Your task to perform on an android device: uninstall "Roku - Official Remote Control" Image 0: 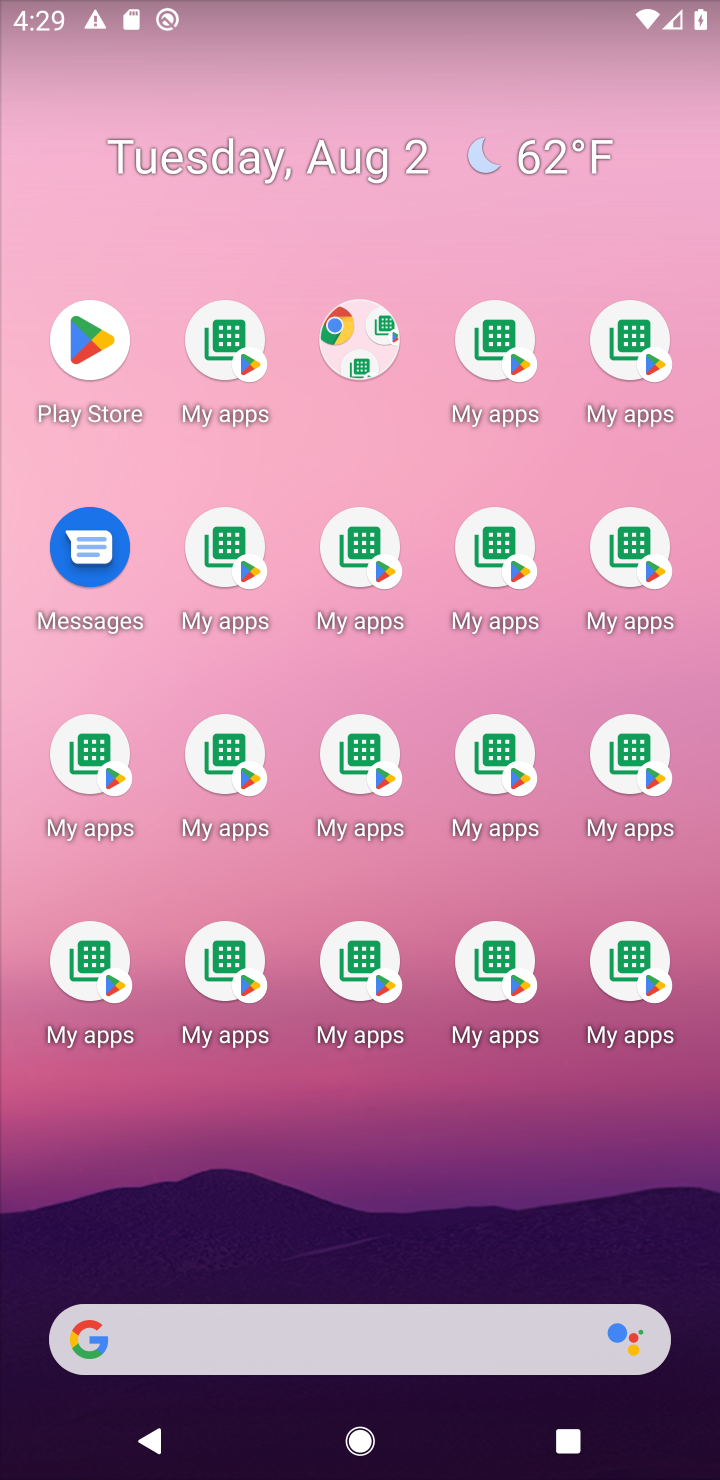
Step 0: click (69, 320)
Your task to perform on an android device: uninstall "Roku - Official Remote Control" Image 1: 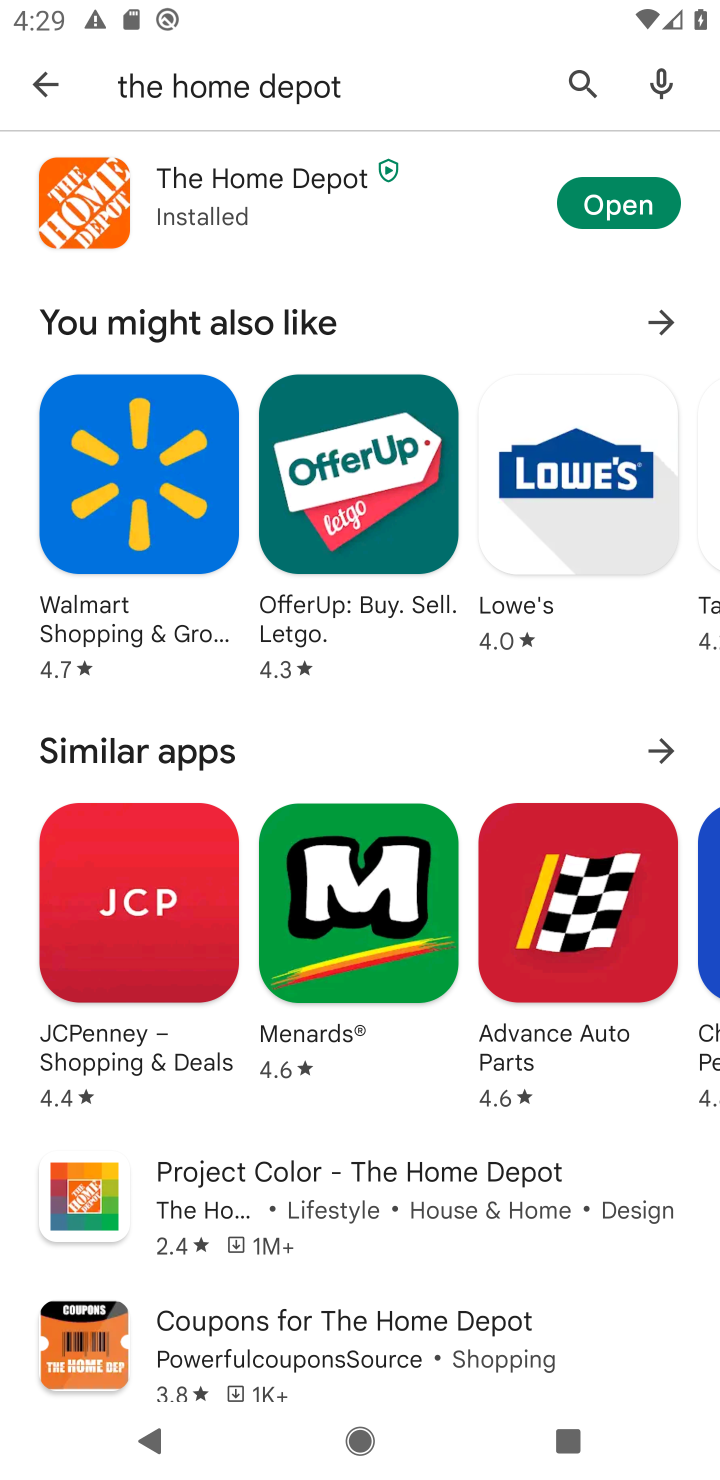
Step 1: click (630, 192)
Your task to perform on an android device: uninstall "Roku - Official Remote Control" Image 2: 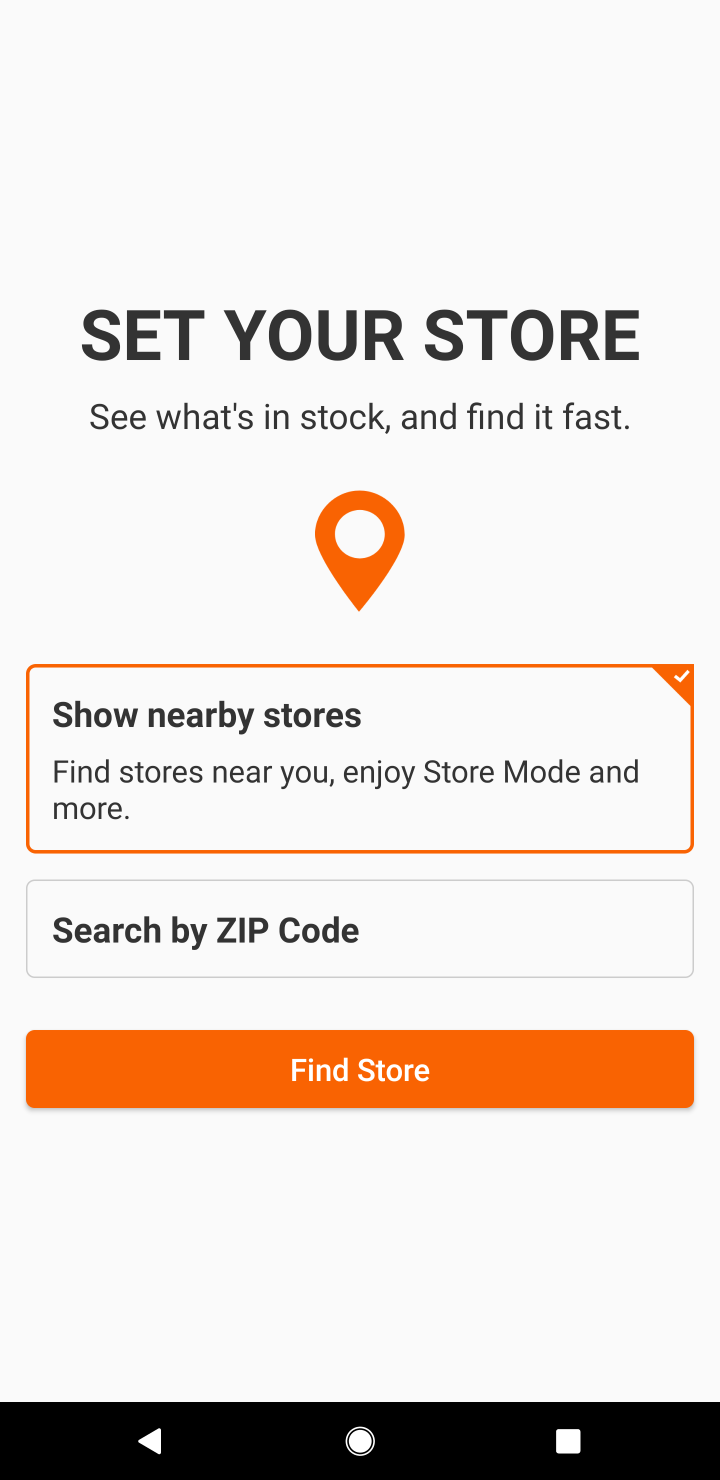
Step 2: press back button
Your task to perform on an android device: uninstall "Roku - Official Remote Control" Image 3: 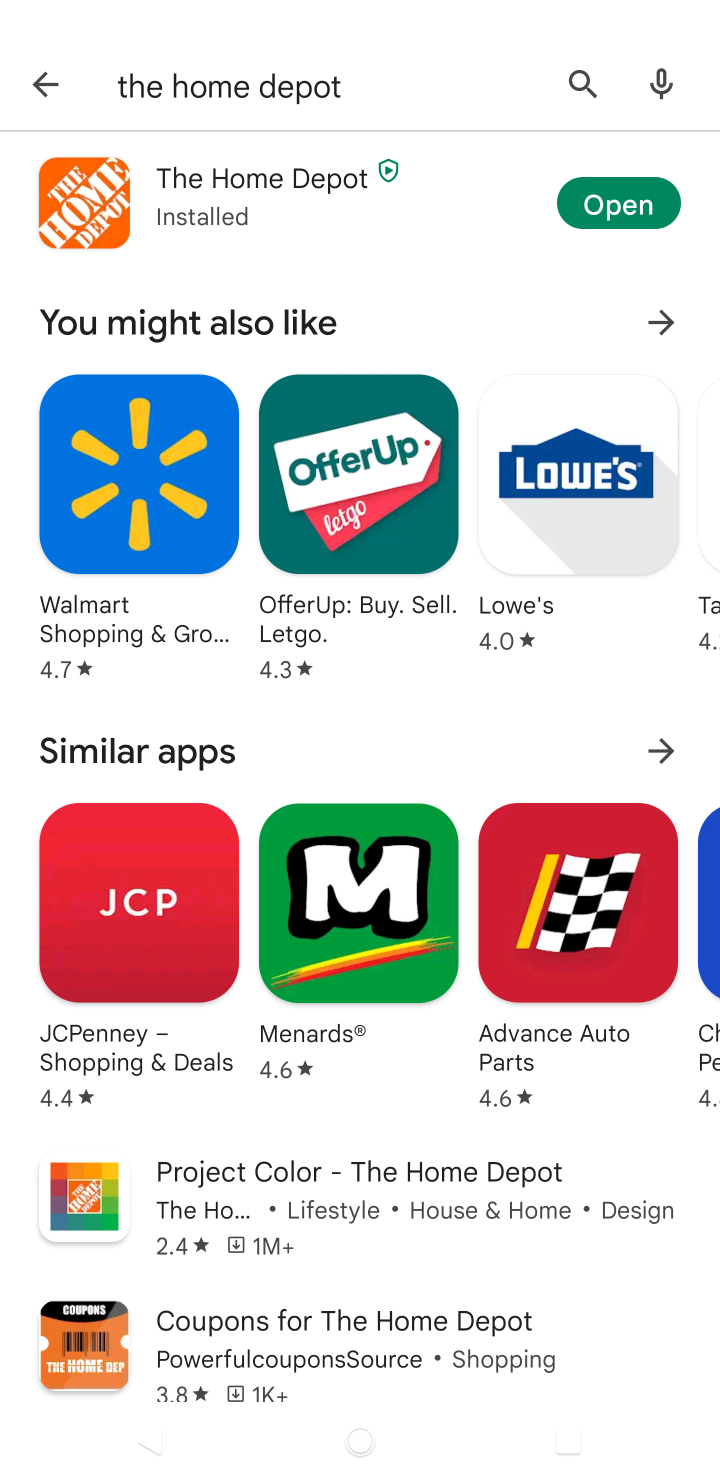
Step 3: click (383, 223)
Your task to perform on an android device: uninstall "Roku - Official Remote Control" Image 4: 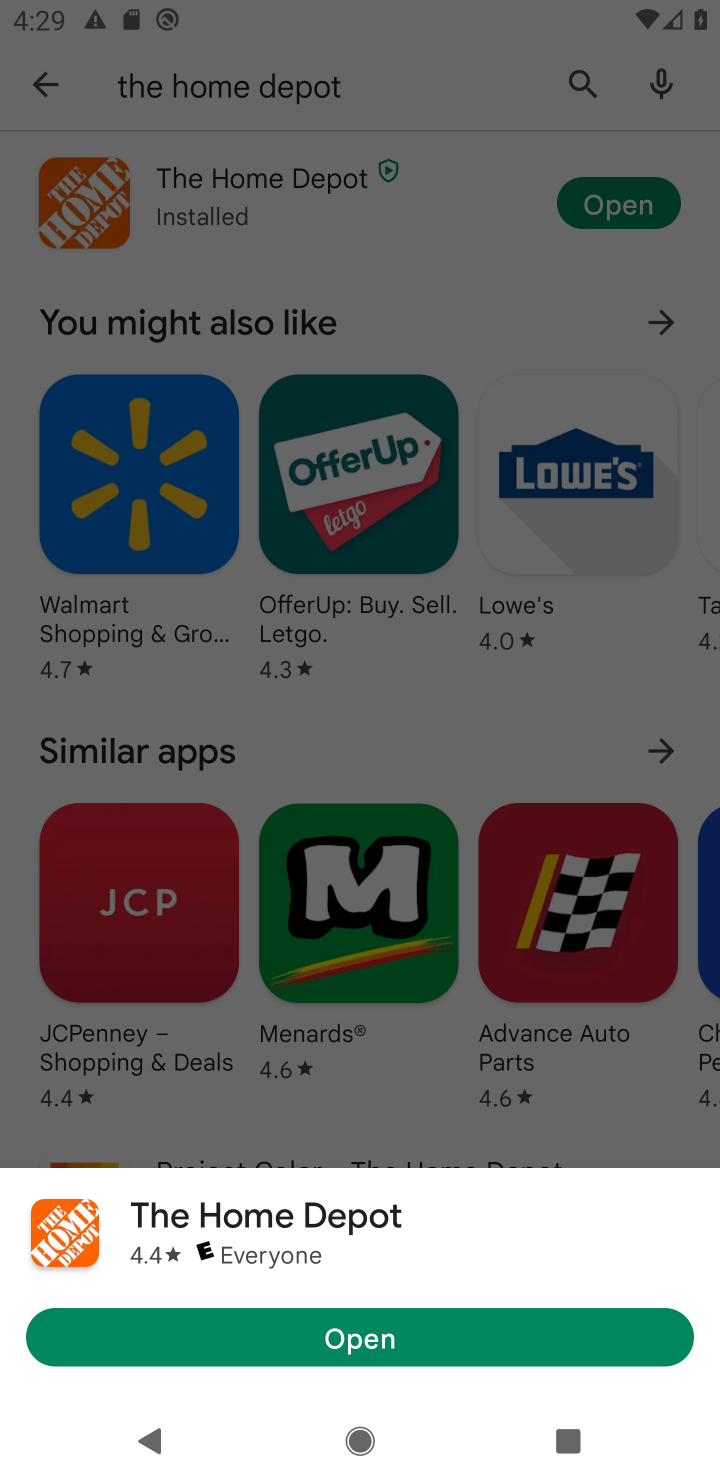
Step 4: click (579, 86)
Your task to perform on an android device: uninstall "Roku - Official Remote Control" Image 5: 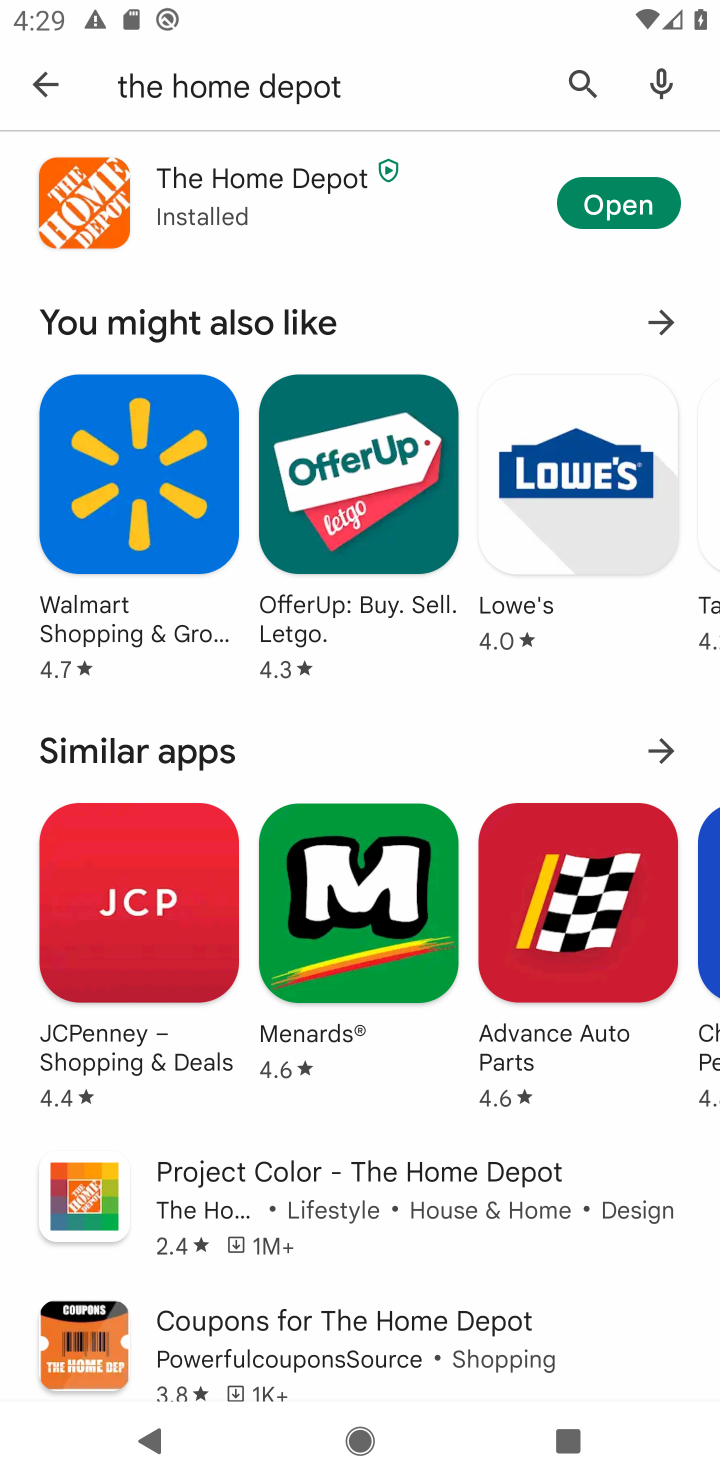
Step 5: click (583, 83)
Your task to perform on an android device: uninstall "Roku - Official Remote Control" Image 6: 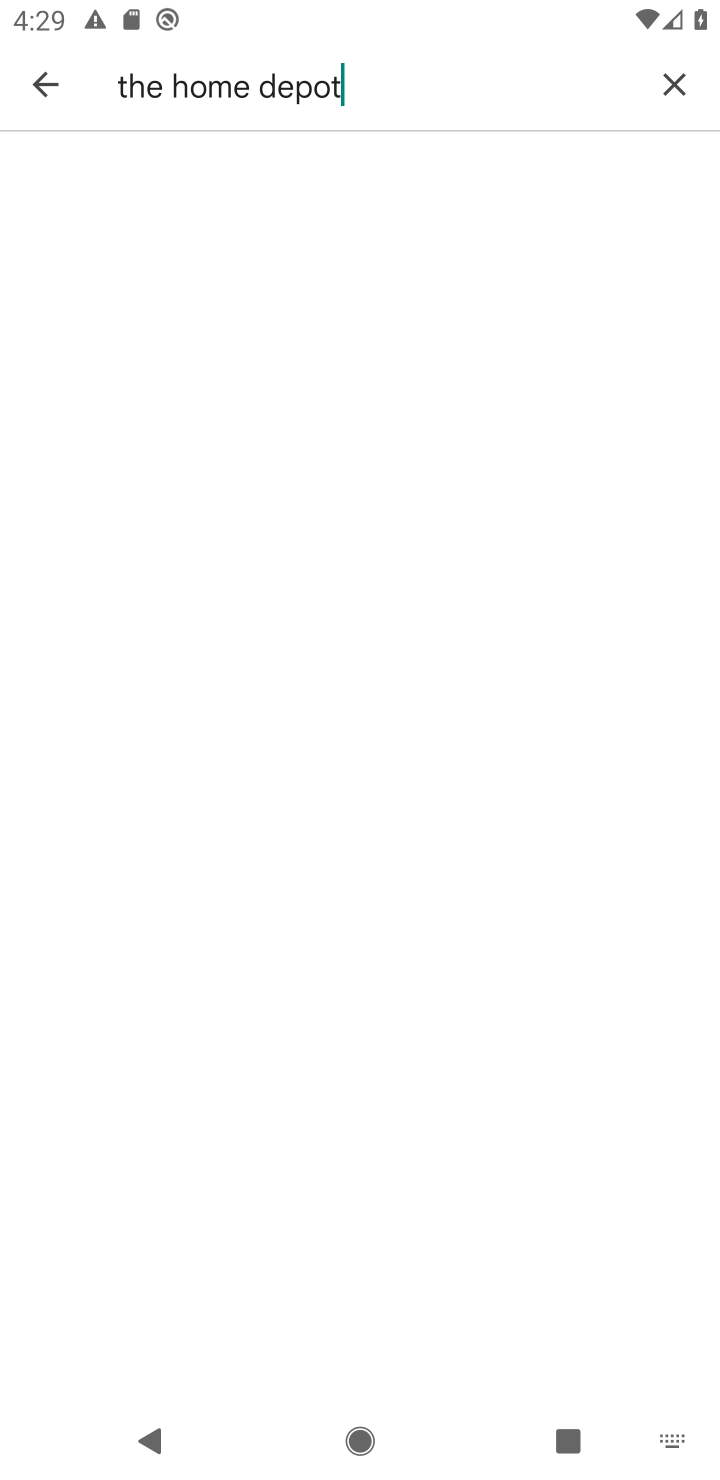
Step 6: click (585, 82)
Your task to perform on an android device: uninstall "Roku - Official Remote Control" Image 7: 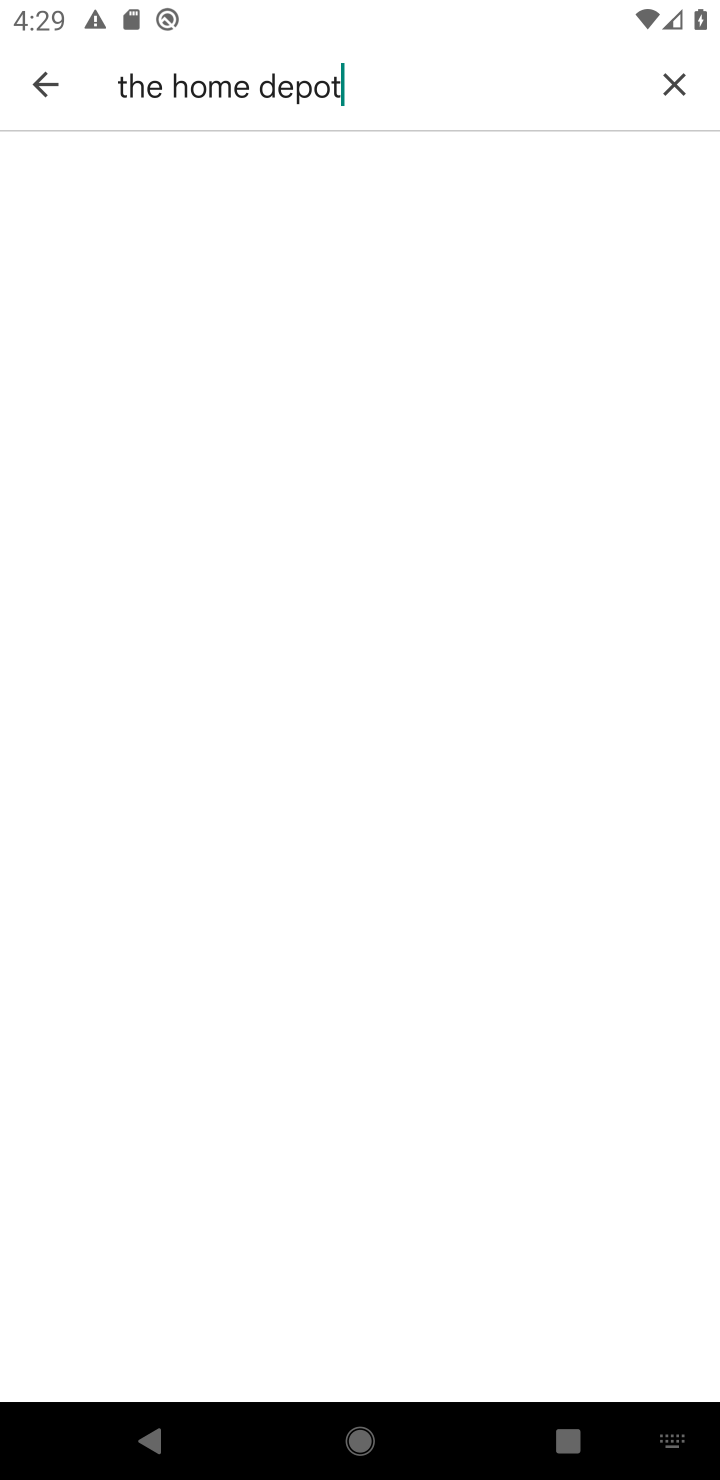
Step 7: click (585, 84)
Your task to perform on an android device: uninstall "Roku - Official Remote Control" Image 8: 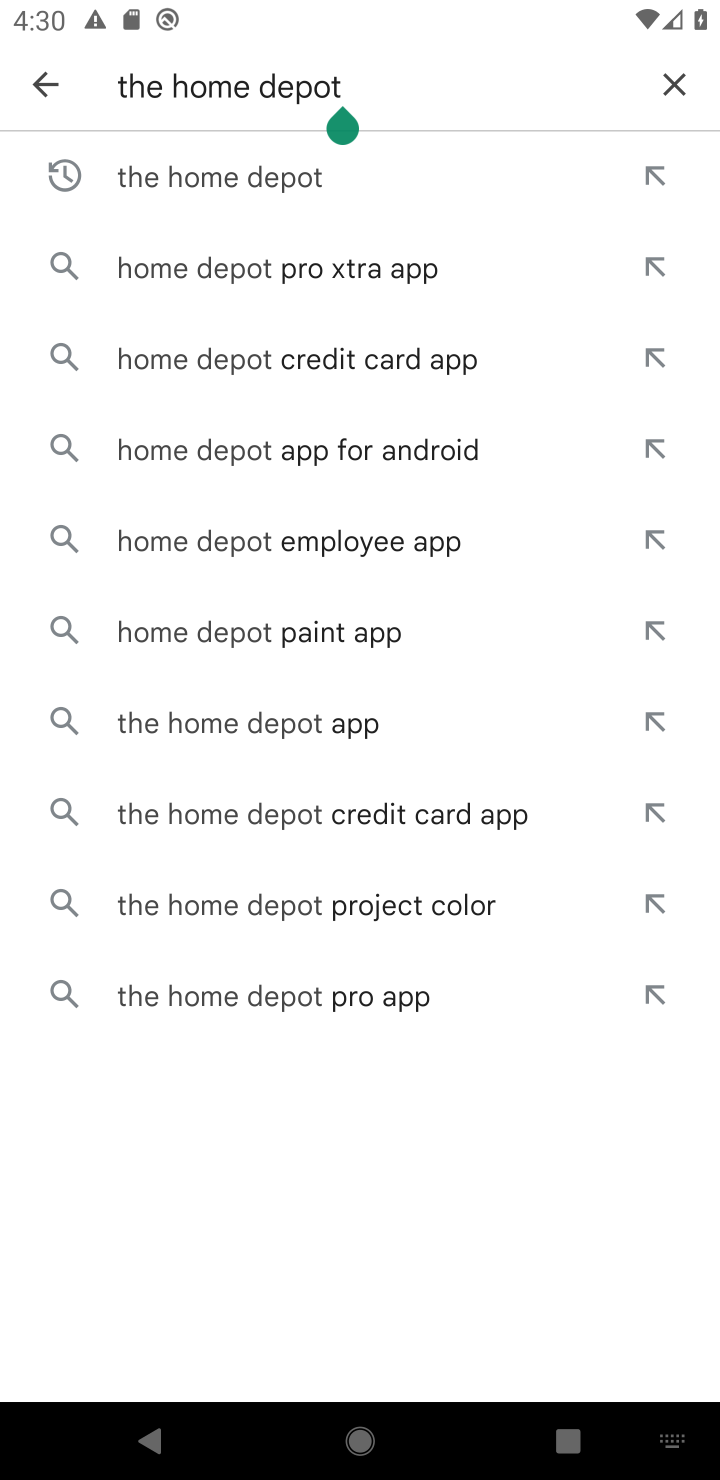
Step 8: click (675, 85)
Your task to perform on an android device: uninstall "Roku - Official Remote Control" Image 9: 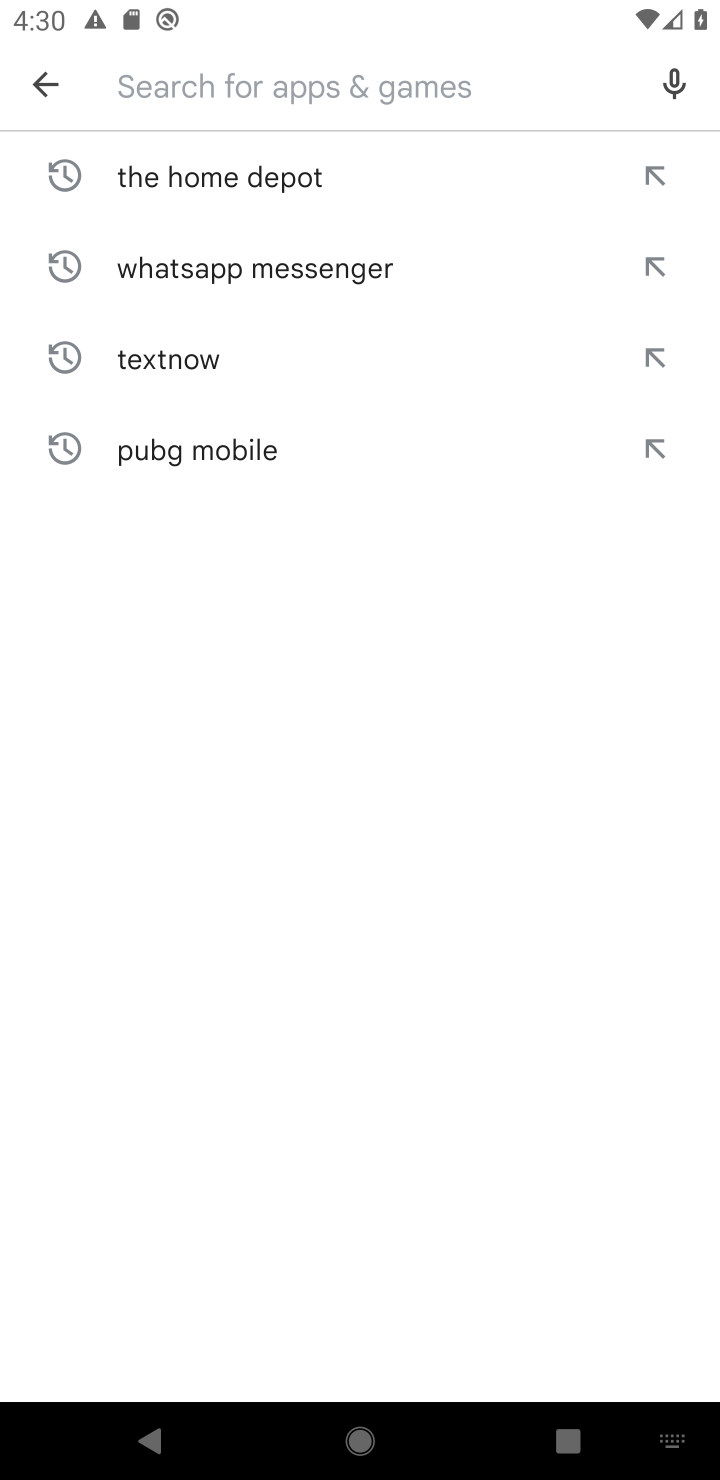
Step 9: type "roku - official remote control"
Your task to perform on an android device: uninstall "Roku - Official Remote Control" Image 10: 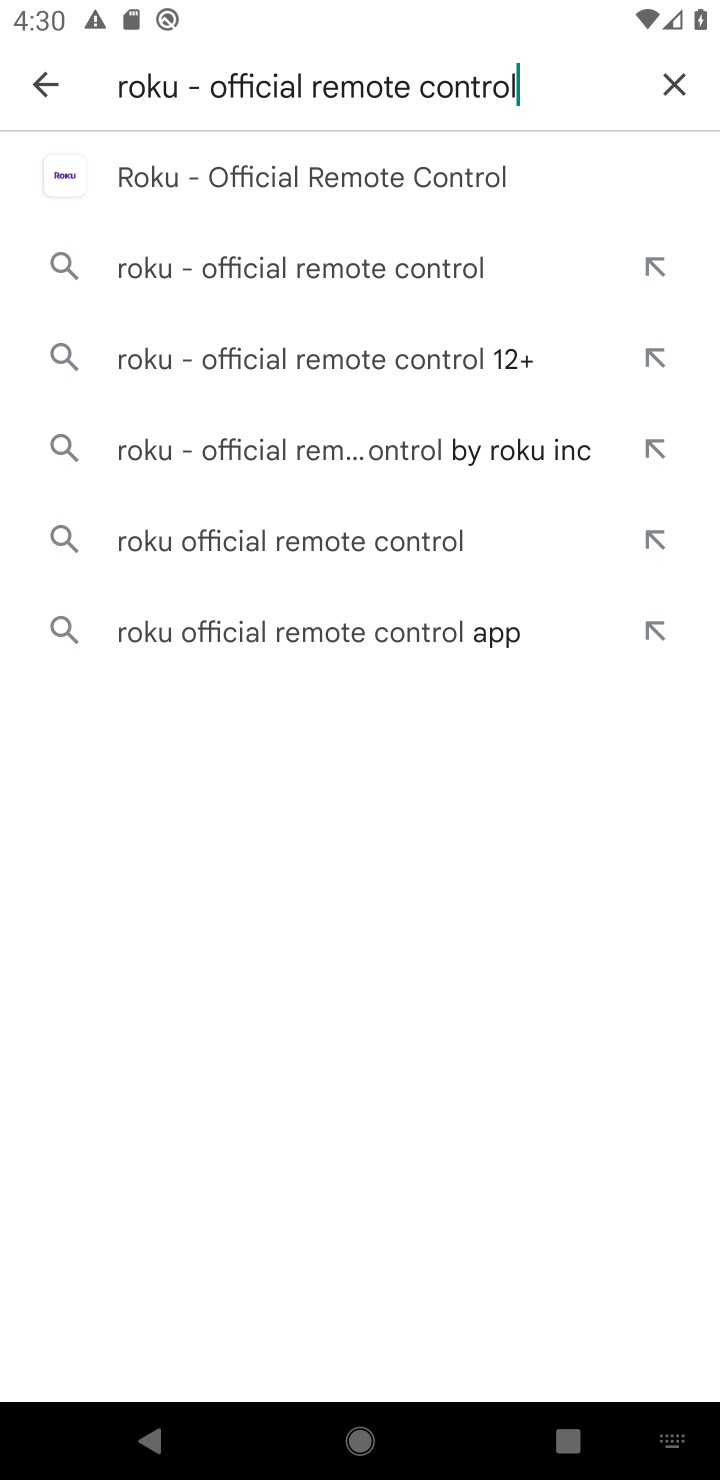
Step 10: click (427, 171)
Your task to perform on an android device: uninstall "Roku - Official Remote Control" Image 11: 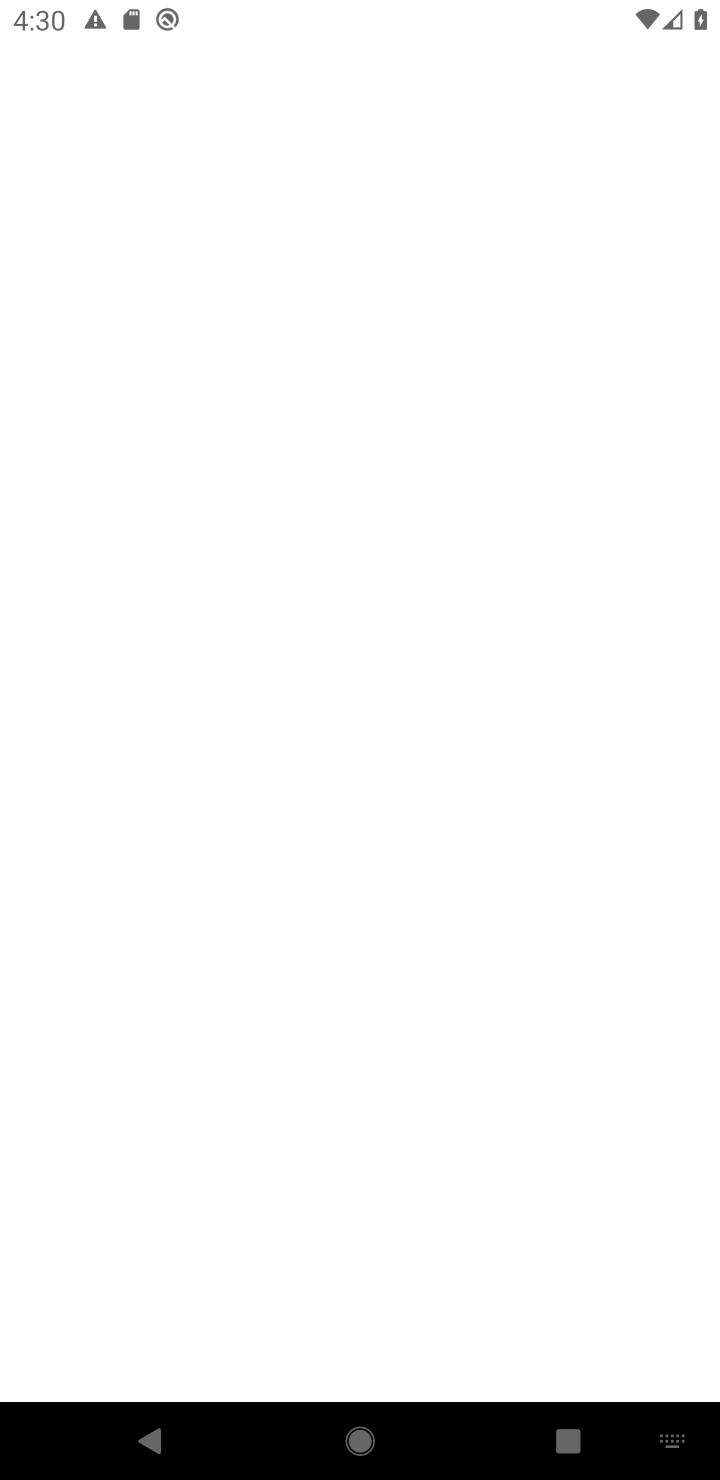
Step 11: click (407, 204)
Your task to perform on an android device: uninstall "Roku - Official Remote Control" Image 12: 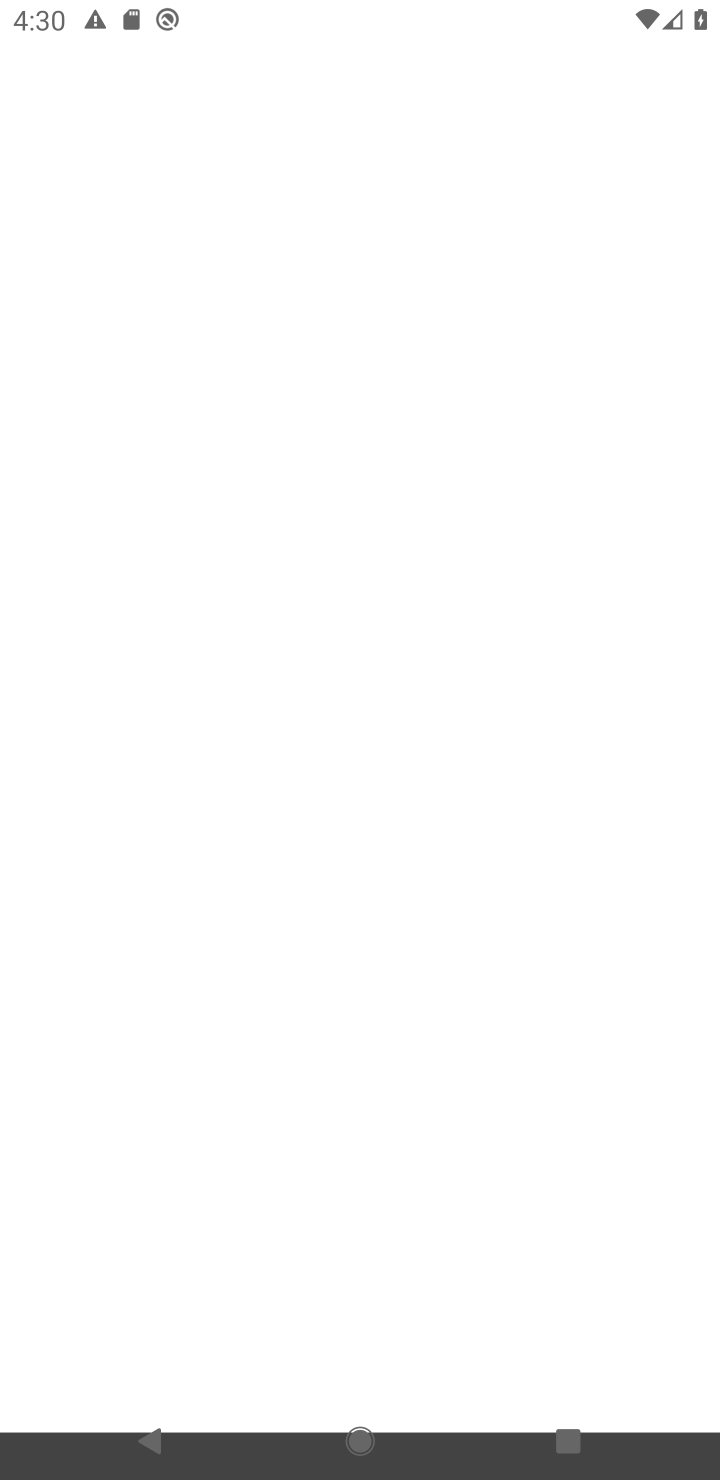
Step 12: click (407, 196)
Your task to perform on an android device: uninstall "Roku - Official Remote Control" Image 13: 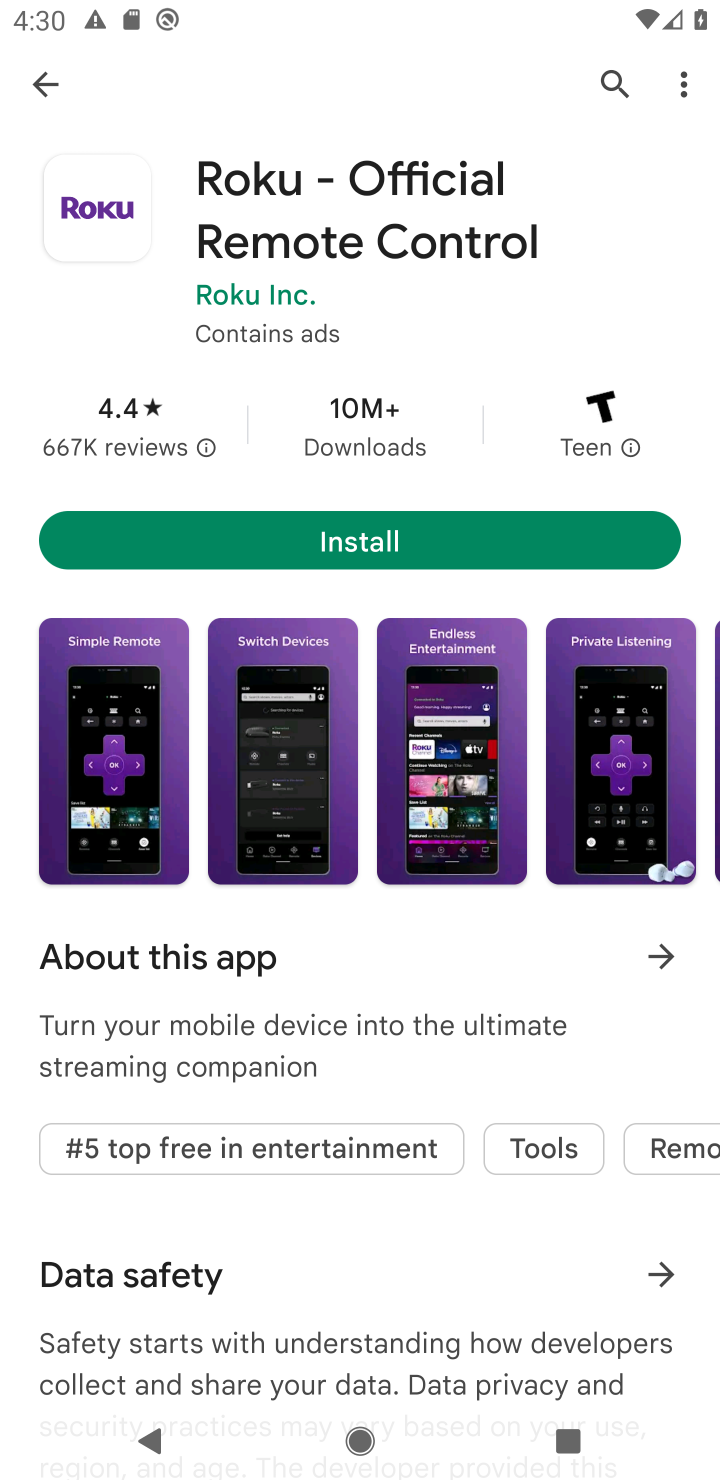
Step 13: click (368, 545)
Your task to perform on an android device: uninstall "Roku - Official Remote Control" Image 14: 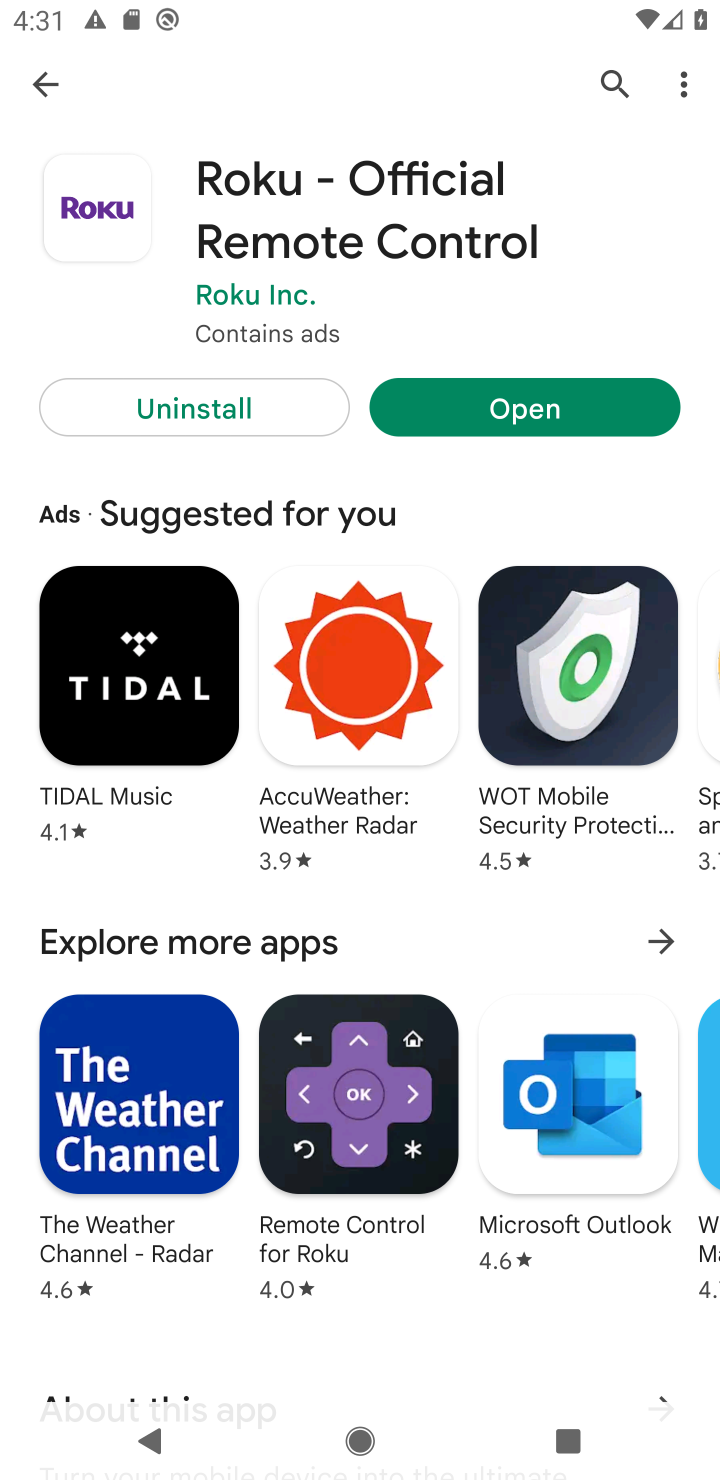
Step 14: click (544, 402)
Your task to perform on an android device: uninstall "Roku - Official Remote Control" Image 15: 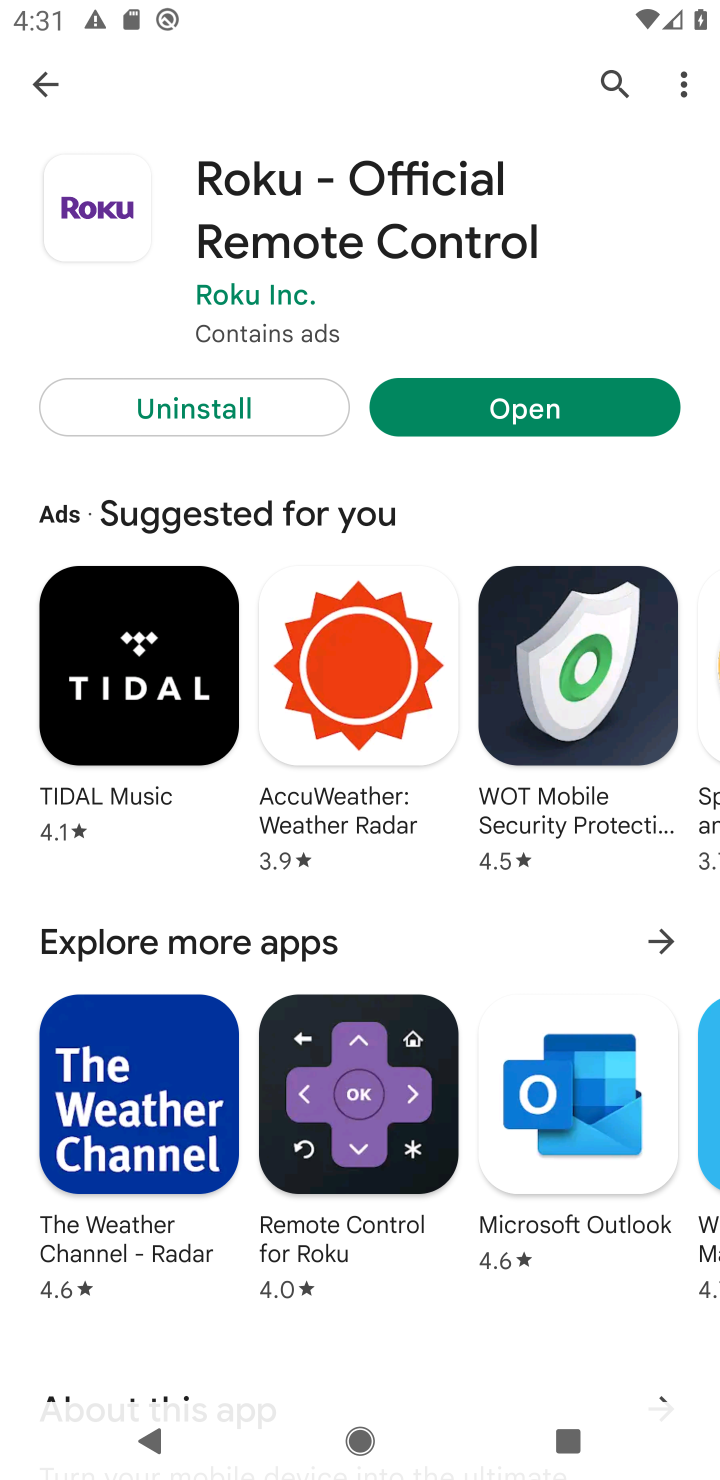
Step 15: click (540, 400)
Your task to perform on an android device: uninstall "Roku - Official Remote Control" Image 16: 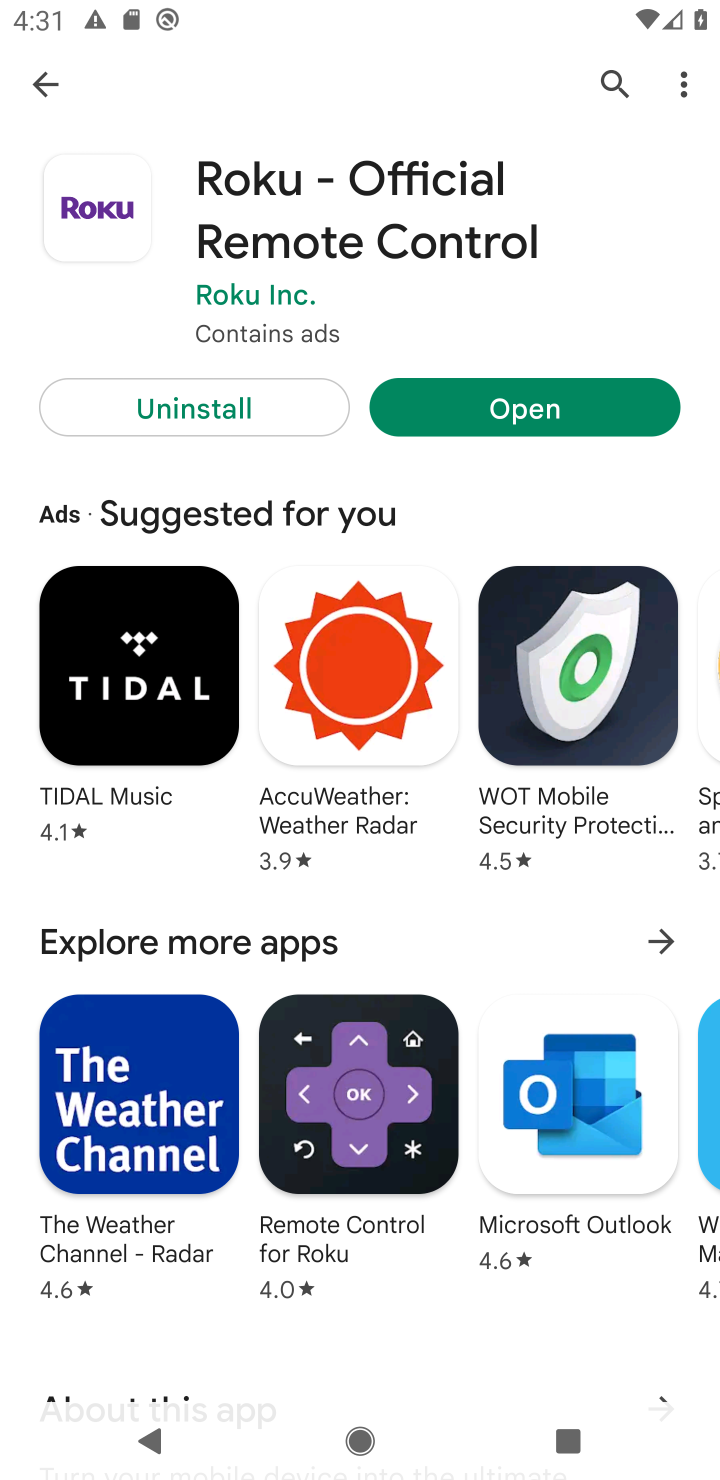
Step 16: click (202, 370)
Your task to perform on an android device: uninstall "Roku - Official Remote Control" Image 17: 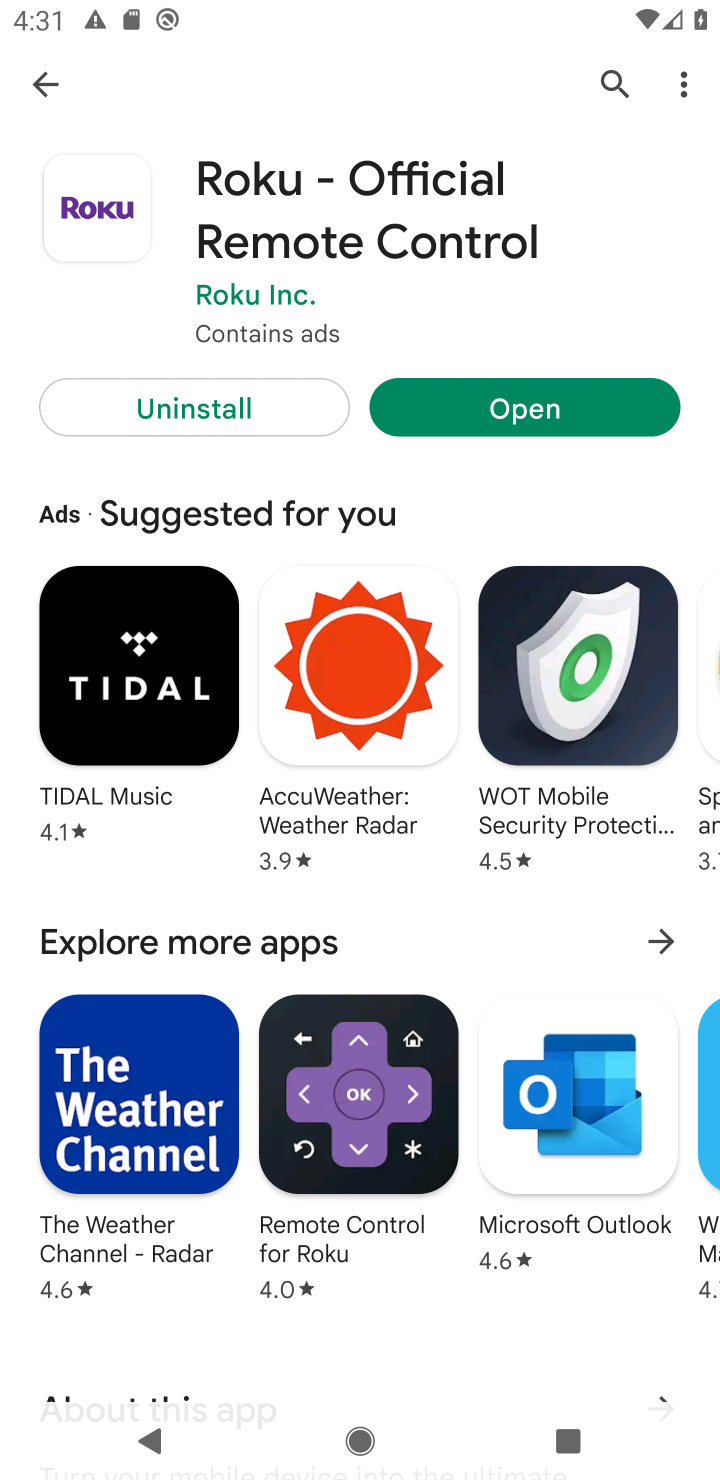
Step 17: click (241, 389)
Your task to perform on an android device: uninstall "Roku - Official Remote Control" Image 18: 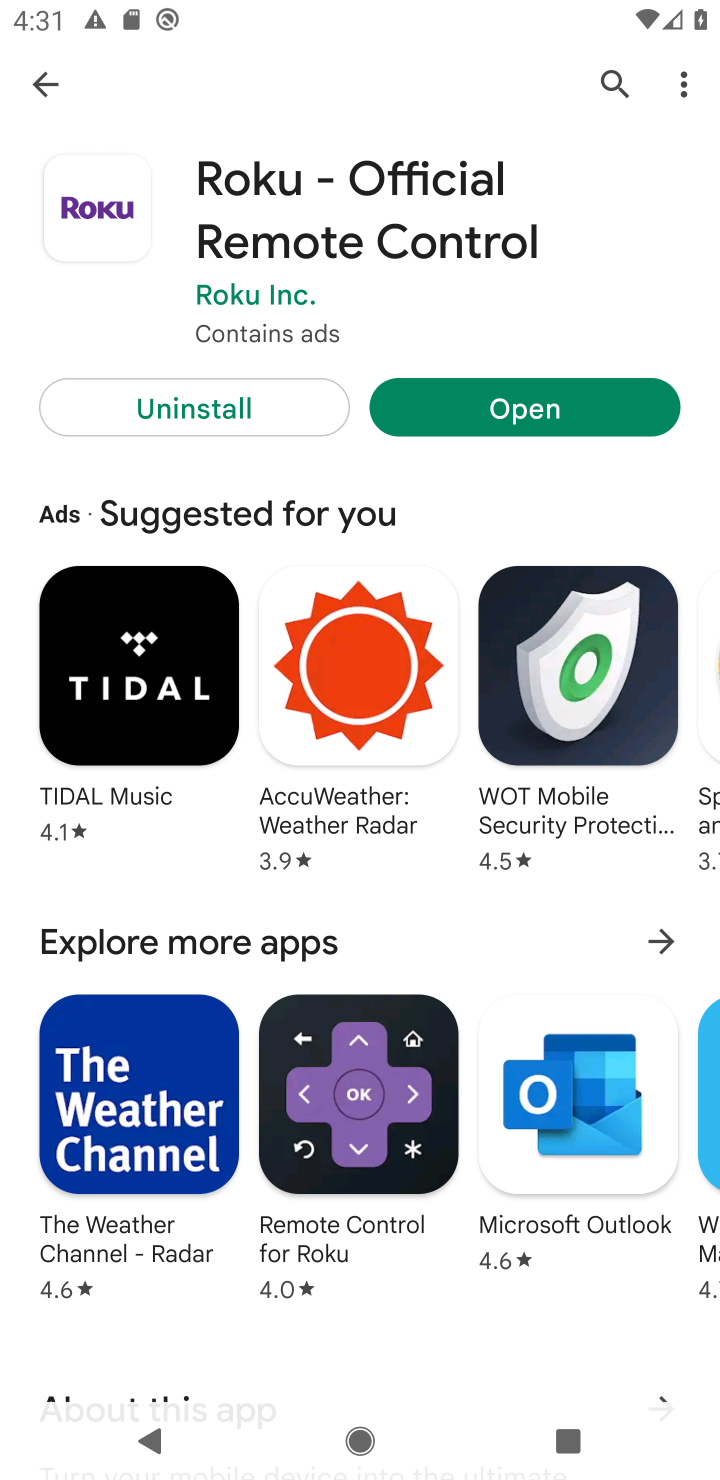
Step 18: click (241, 389)
Your task to perform on an android device: uninstall "Roku - Official Remote Control" Image 19: 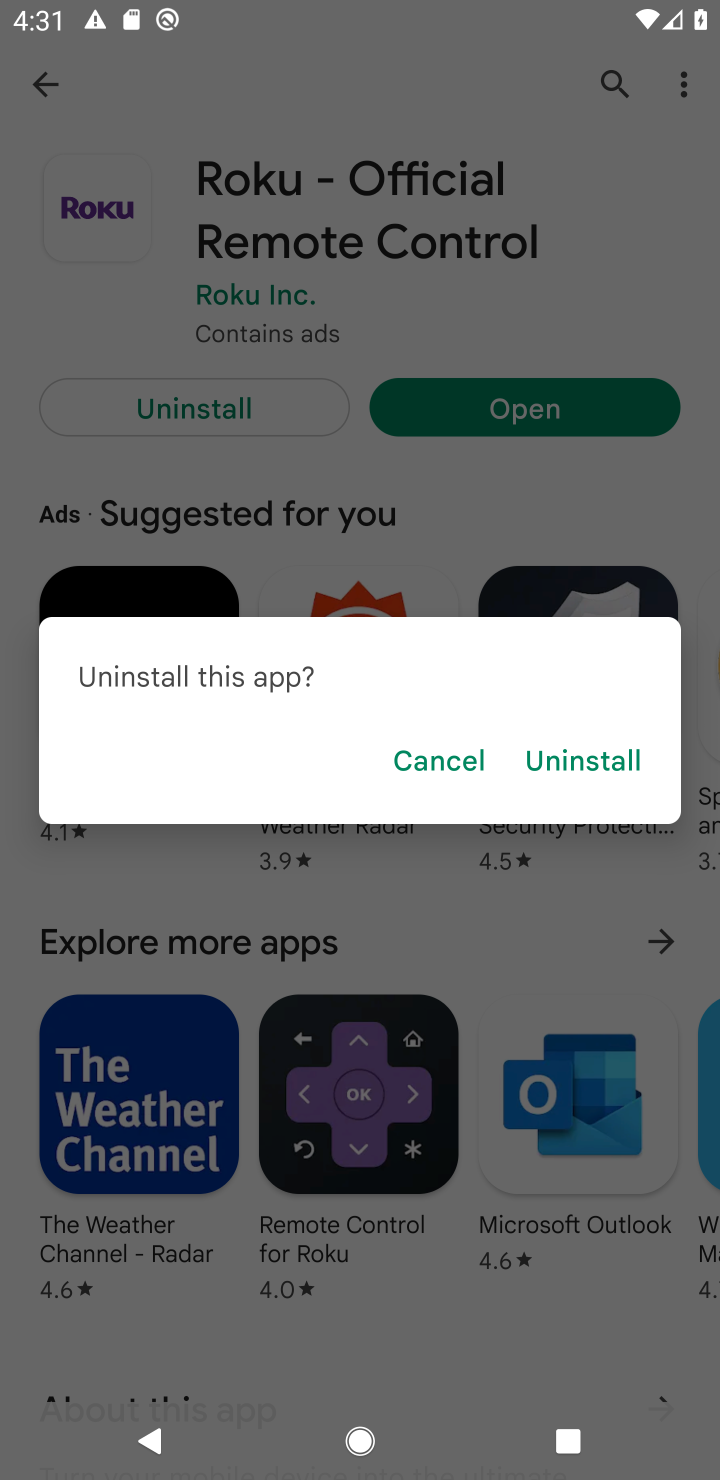
Step 19: click (619, 767)
Your task to perform on an android device: uninstall "Roku - Official Remote Control" Image 20: 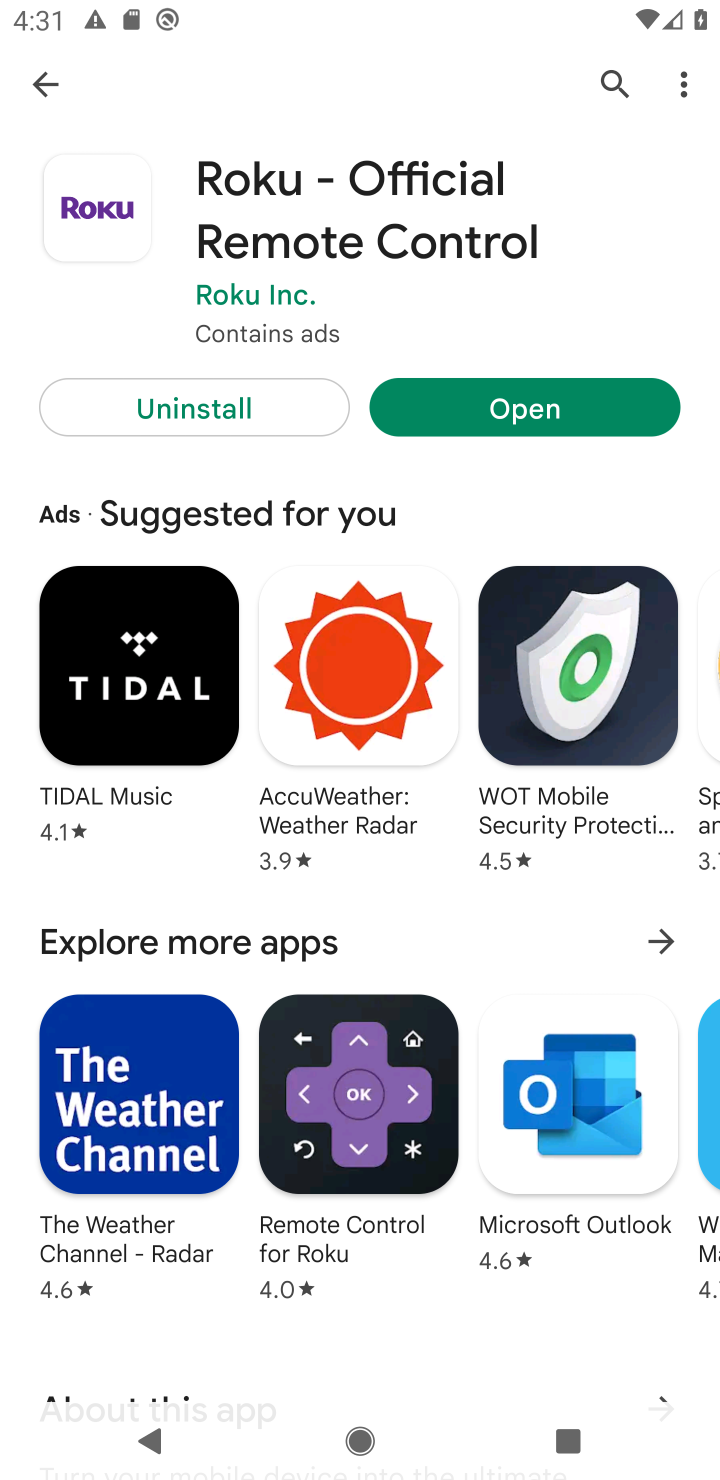
Step 20: task complete